Your task to perform on an android device: Open Amazon Image 0: 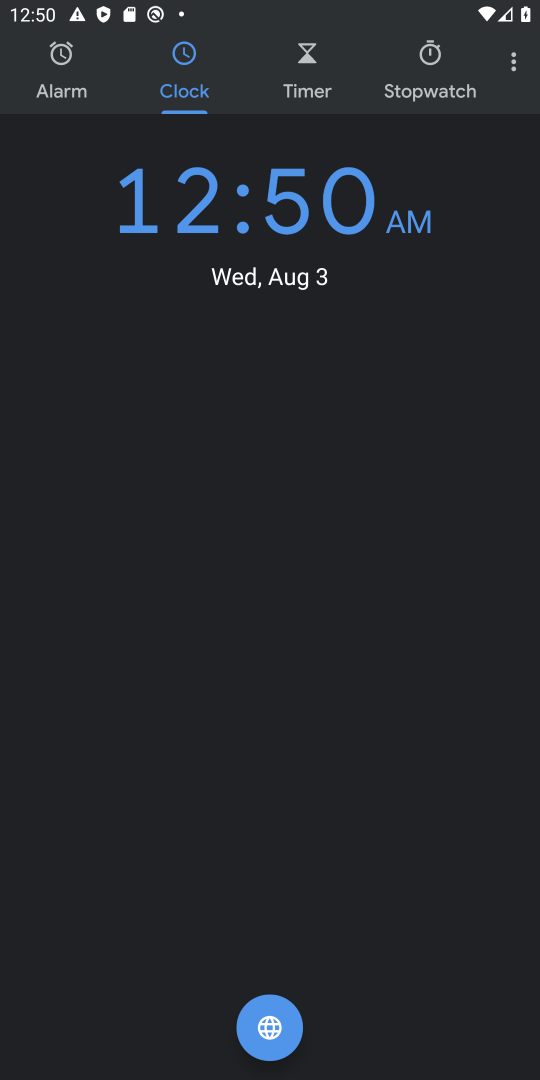
Step 0: press home button
Your task to perform on an android device: Open Amazon Image 1: 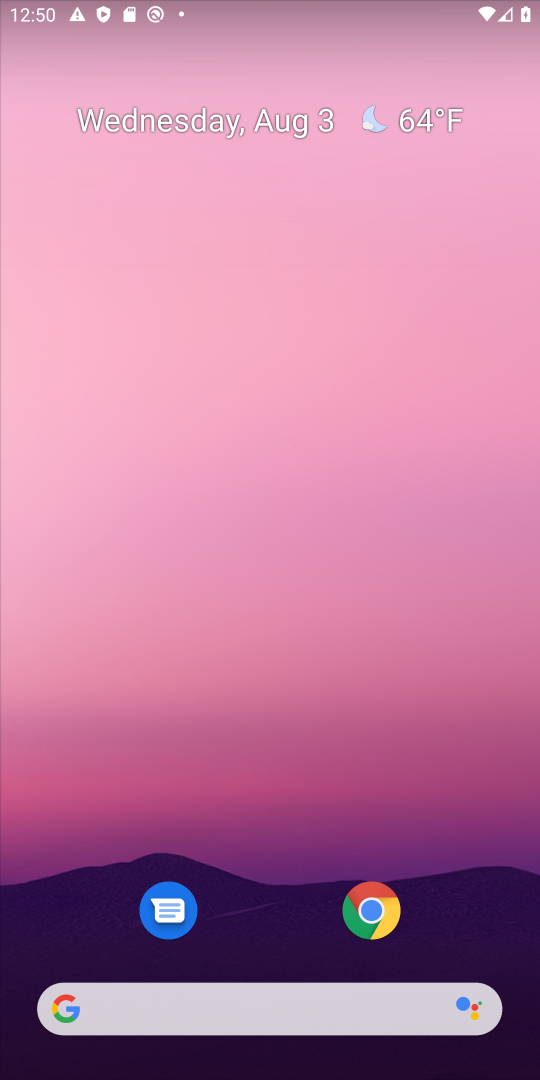
Step 1: drag from (377, 800) to (398, 59)
Your task to perform on an android device: Open Amazon Image 2: 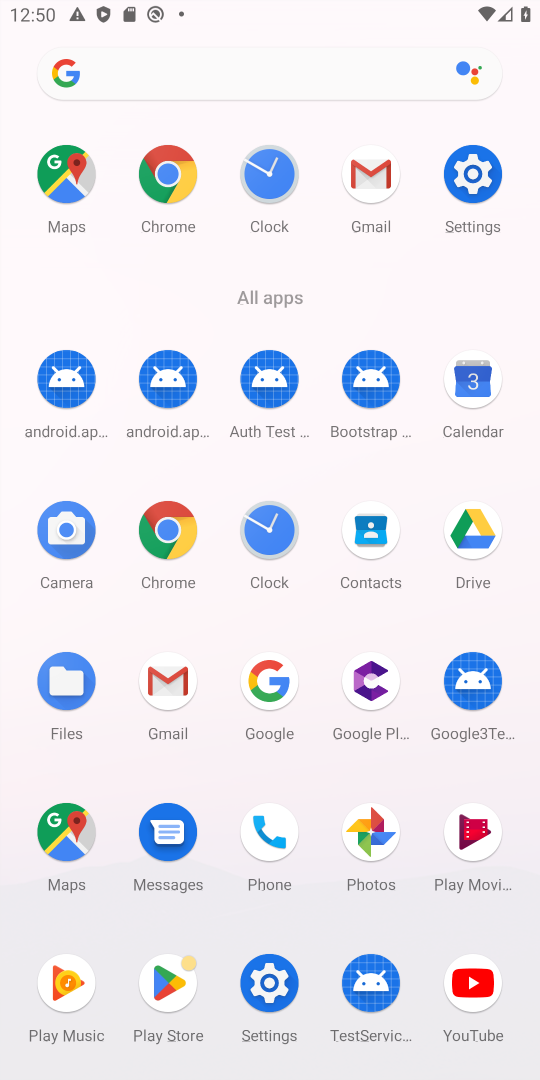
Step 2: click (170, 532)
Your task to perform on an android device: Open Amazon Image 3: 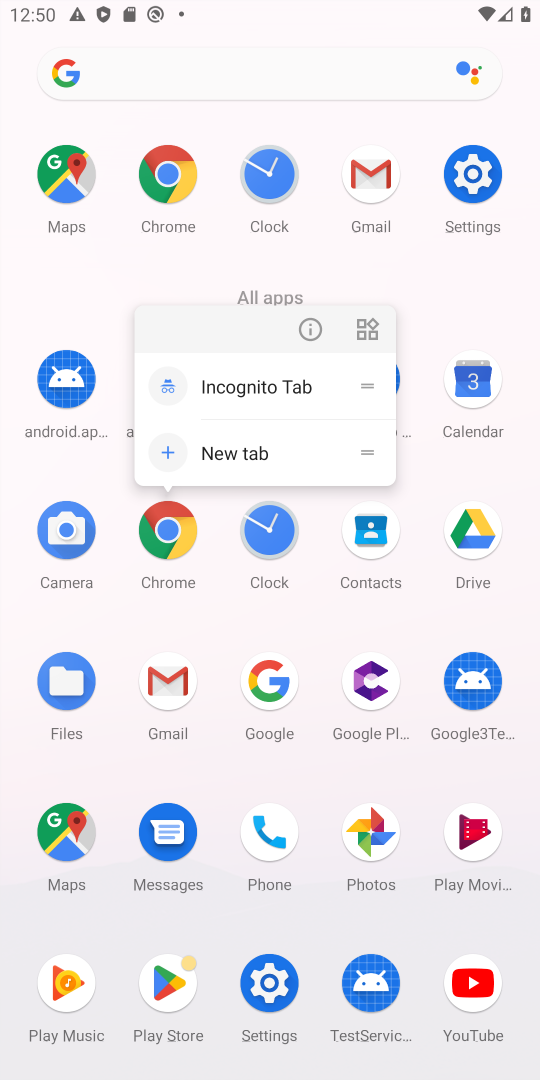
Step 3: click (170, 532)
Your task to perform on an android device: Open Amazon Image 4: 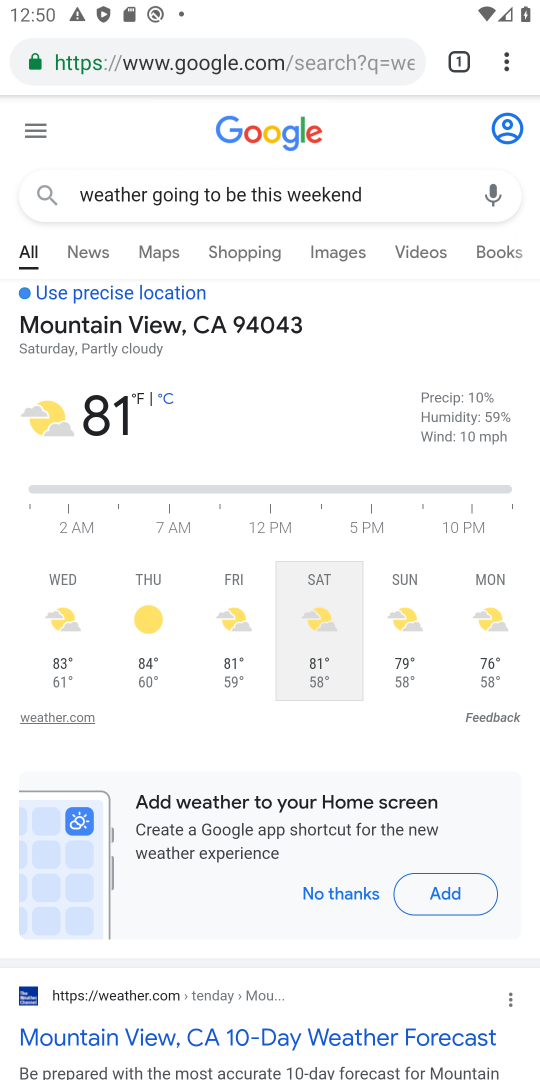
Step 4: click (340, 63)
Your task to perform on an android device: Open Amazon Image 5: 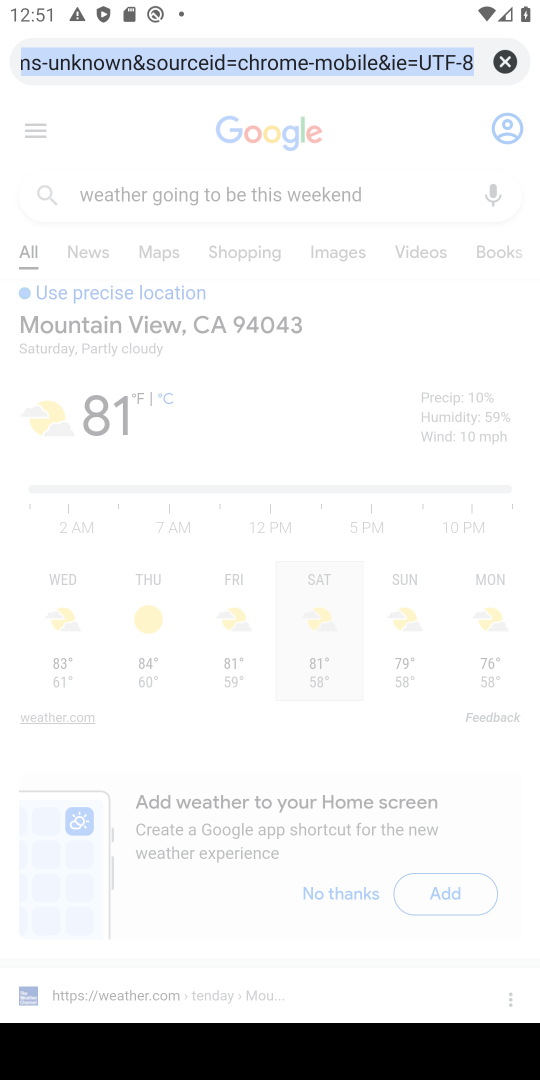
Step 5: type "amazon"
Your task to perform on an android device: Open Amazon Image 6: 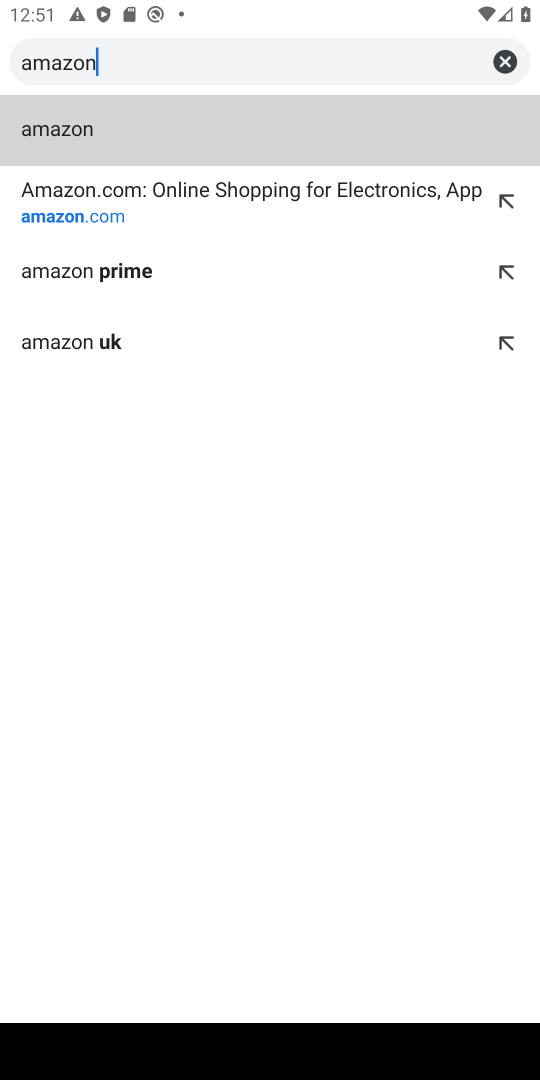
Step 6: click (134, 196)
Your task to perform on an android device: Open Amazon Image 7: 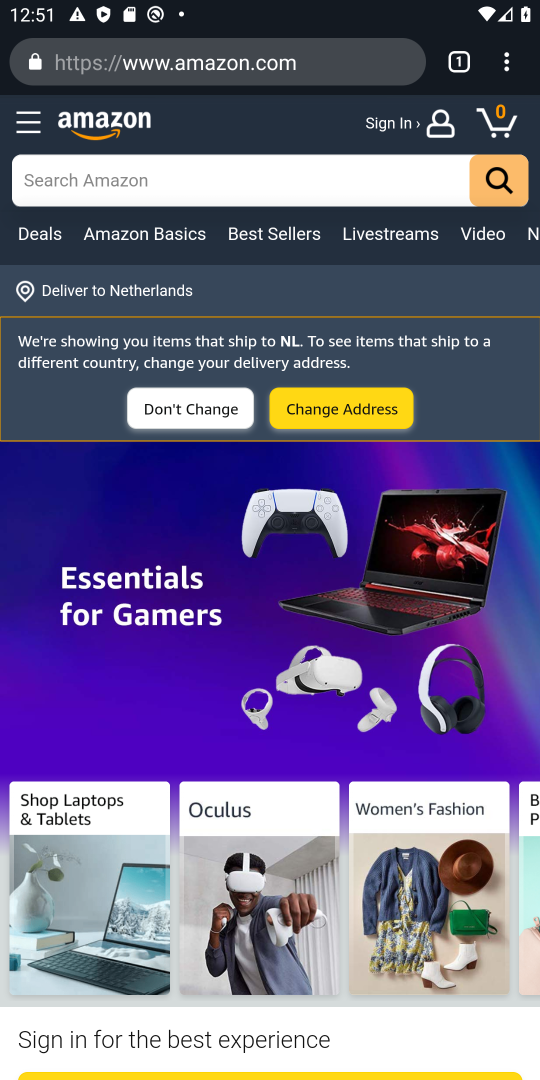
Step 7: task complete